Your task to perform on an android device: turn on the 12-hour format for clock Image 0: 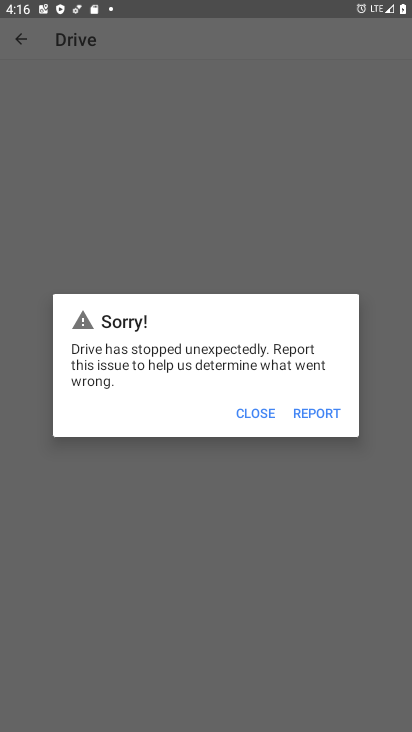
Step 0: press home button
Your task to perform on an android device: turn on the 12-hour format for clock Image 1: 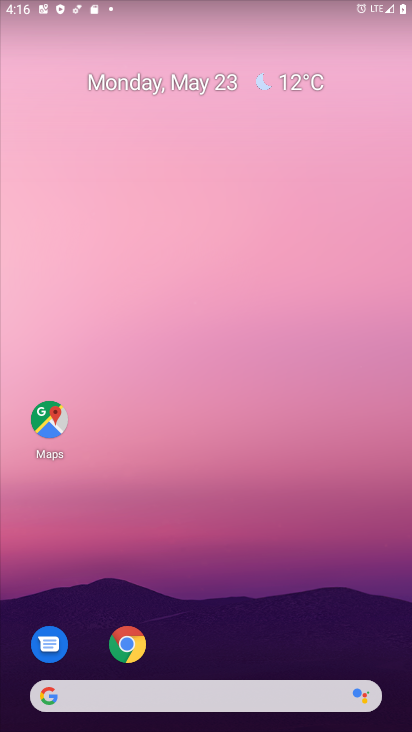
Step 1: drag from (244, 659) to (182, 315)
Your task to perform on an android device: turn on the 12-hour format for clock Image 2: 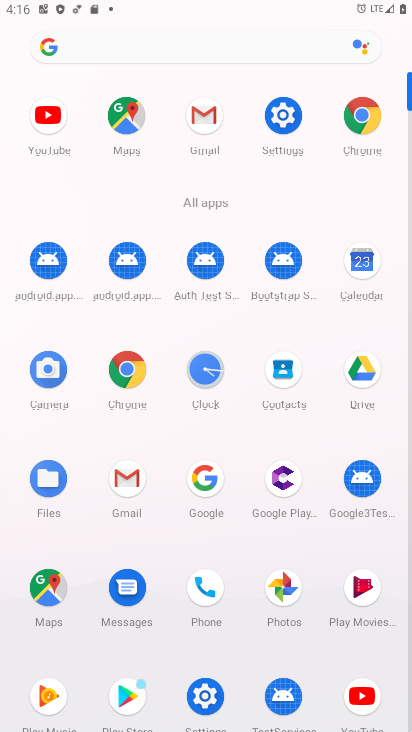
Step 2: click (201, 361)
Your task to perform on an android device: turn on the 12-hour format for clock Image 3: 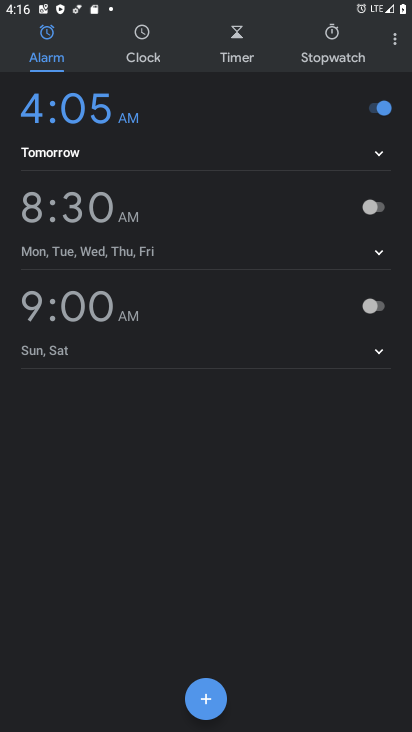
Step 3: click (394, 41)
Your task to perform on an android device: turn on the 12-hour format for clock Image 4: 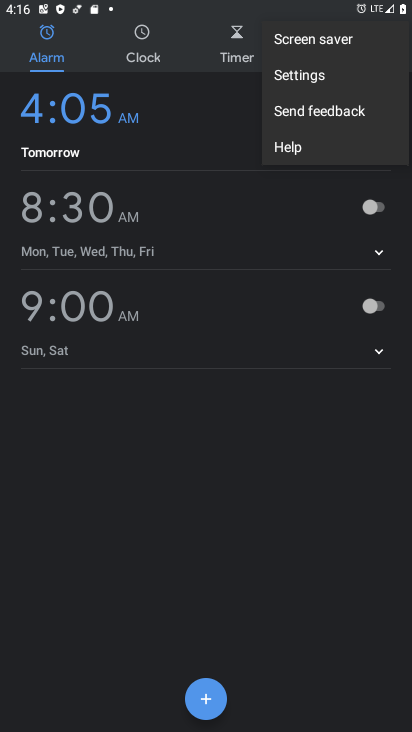
Step 4: click (373, 76)
Your task to perform on an android device: turn on the 12-hour format for clock Image 5: 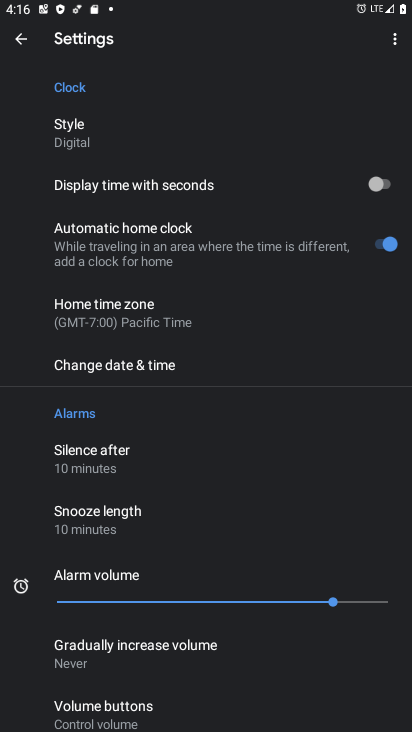
Step 5: drag from (245, 665) to (215, 486)
Your task to perform on an android device: turn on the 12-hour format for clock Image 6: 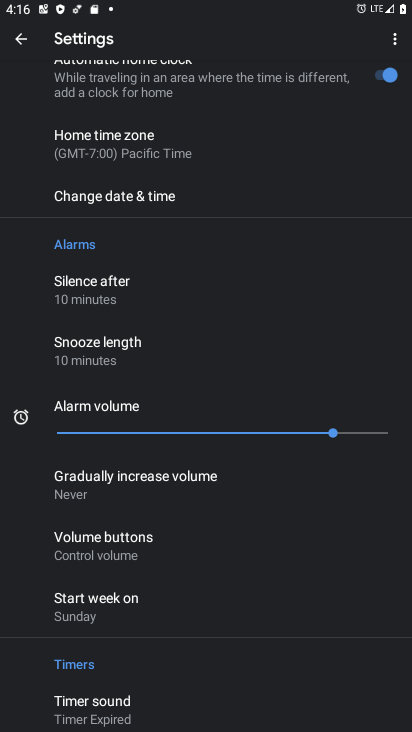
Step 6: click (192, 202)
Your task to perform on an android device: turn on the 12-hour format for clock Image 7: 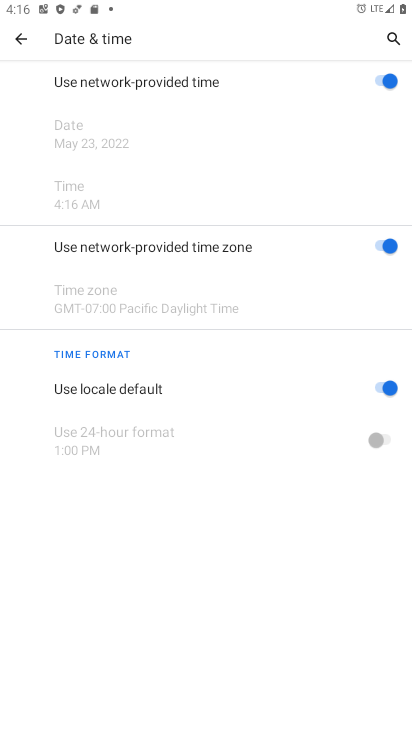
Step 7: task complete